Your task to perform on an android device: uninstall "Facebook Lite" Image 0: 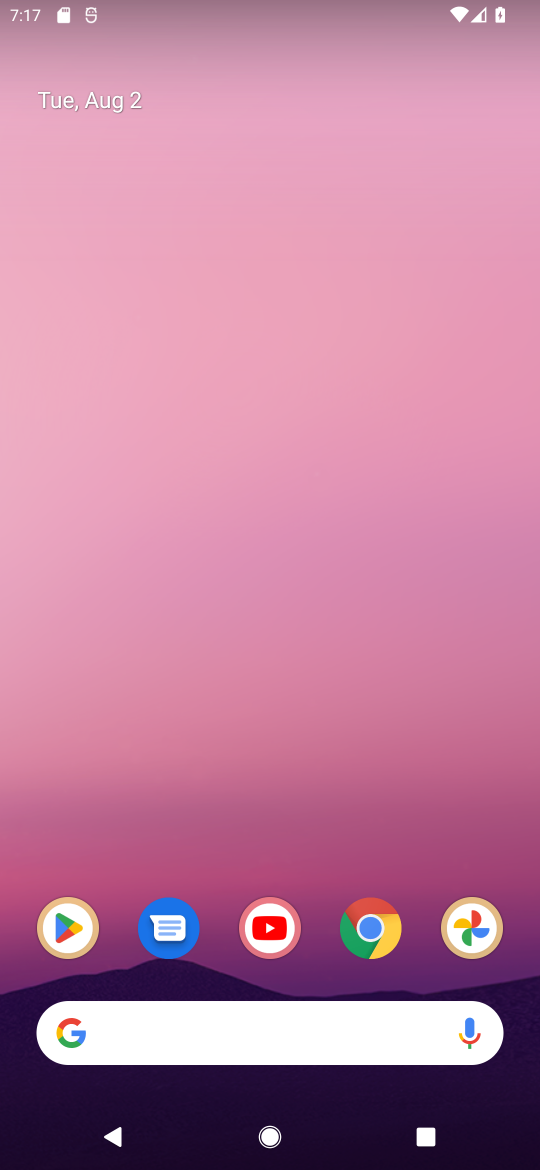
Step 0: click (70, 935)
Your task to perform on an android device: uninstall "Facebook Lite" Image 1: 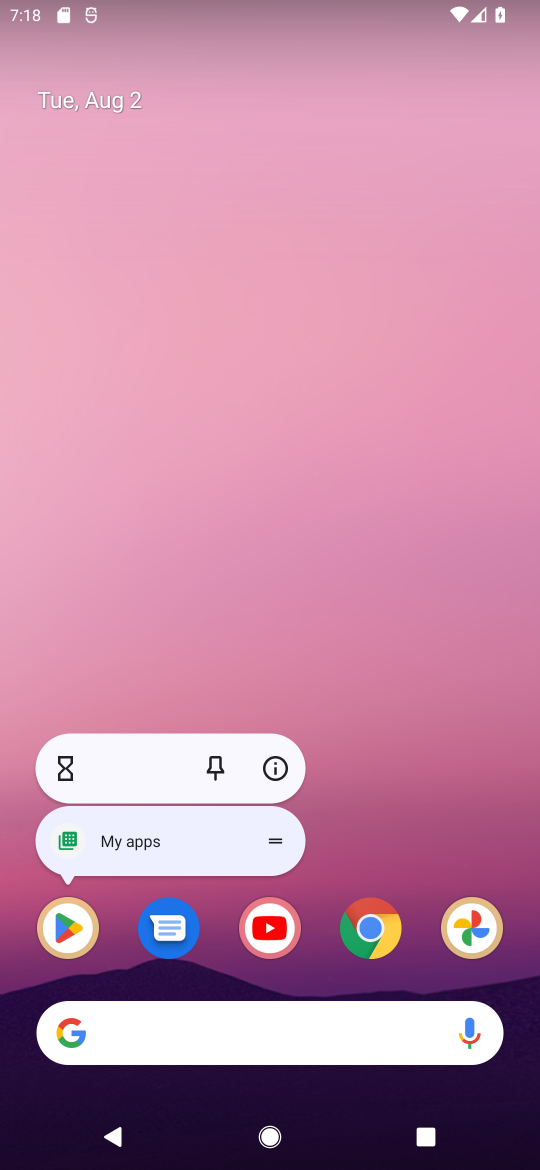
Step 1: click (70, 935)
Your task to perform on an android device: uninstall "Facebook Lite" Image 2: 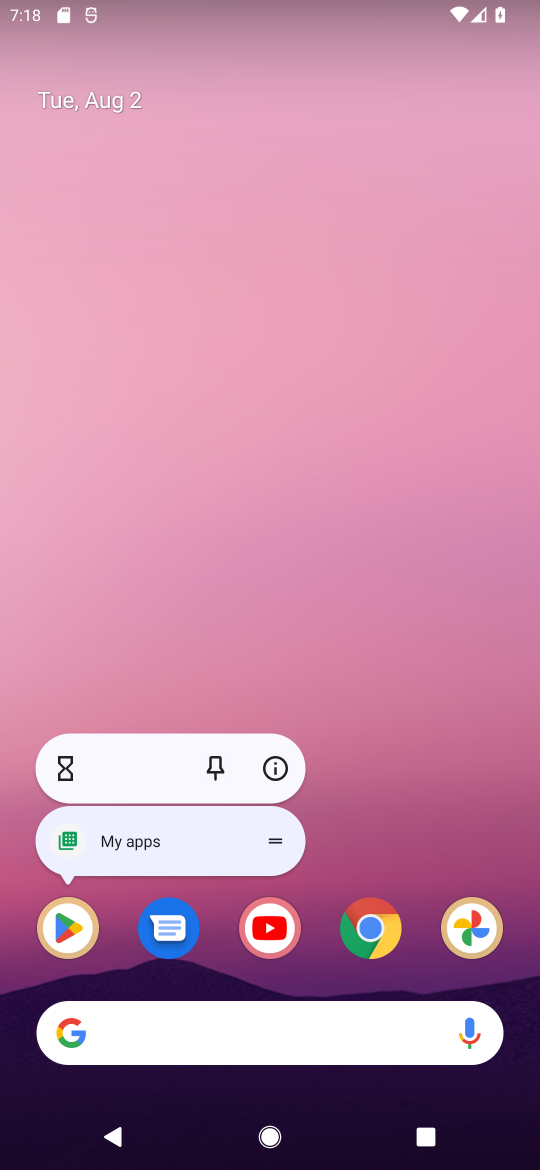
Step 2: click (55, 938)
Your task to perform on an android device: uninstall "Facebook Lite" Image 3: 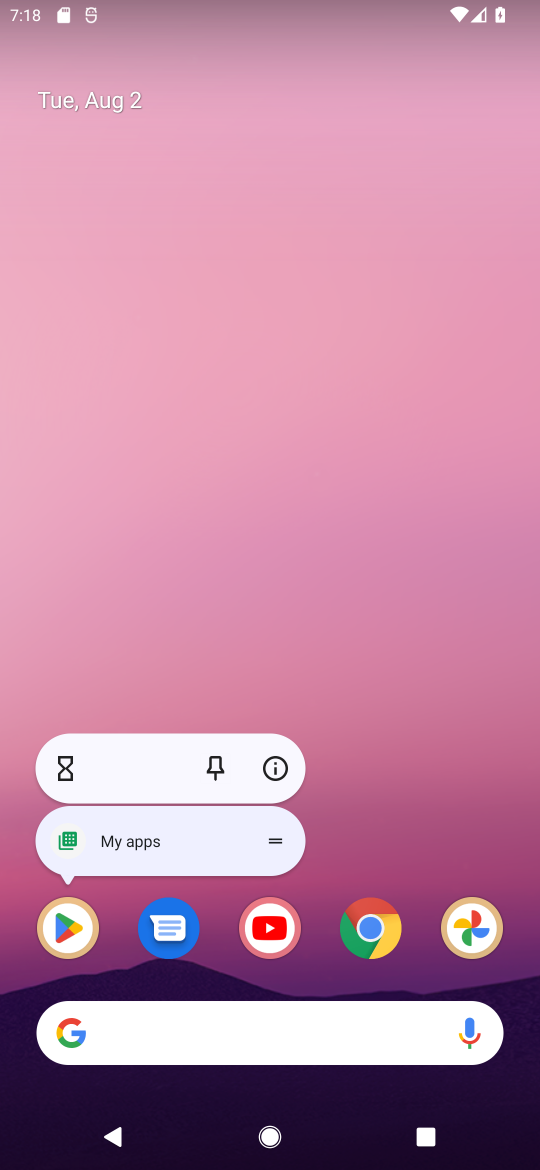
Step 3: click (81, 933)
Your task to perform on an android device: uninstall "Facebook Lite" Image 4: 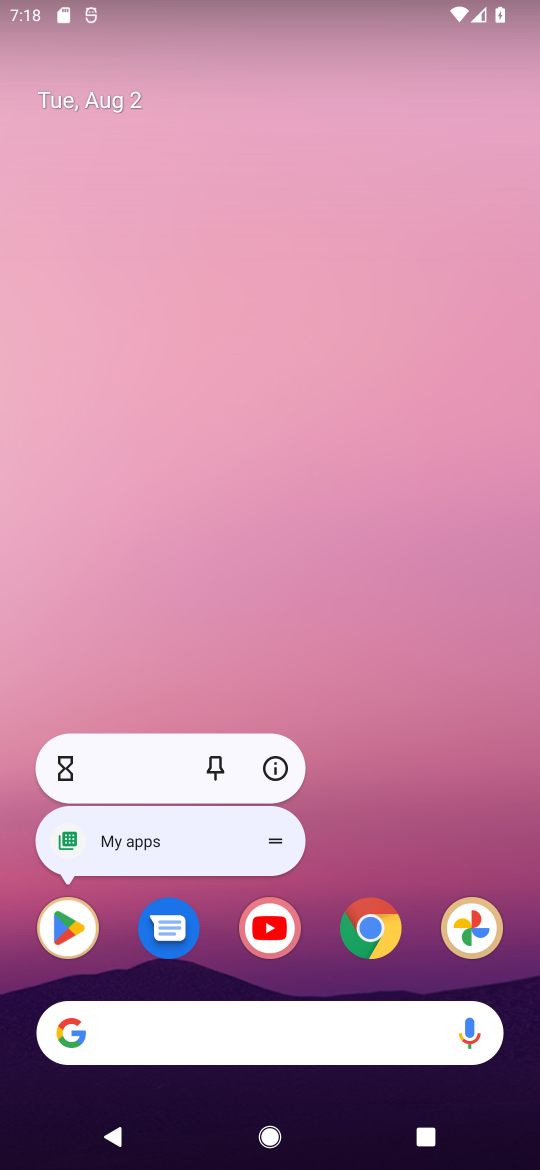
Step 4: click (65, 938)
Your task to perform on an android device: uninstall "Facebook Lite" Image 5: 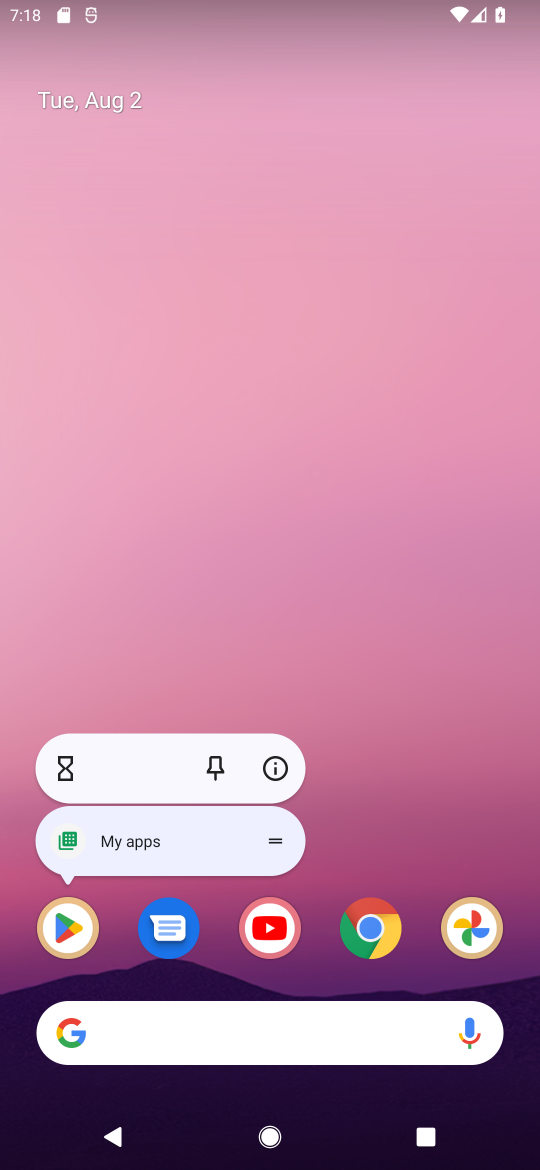
Step 5: click (33, 933)
Your task to perform on an android device: uninstall "Facebook Lite" Image 6: 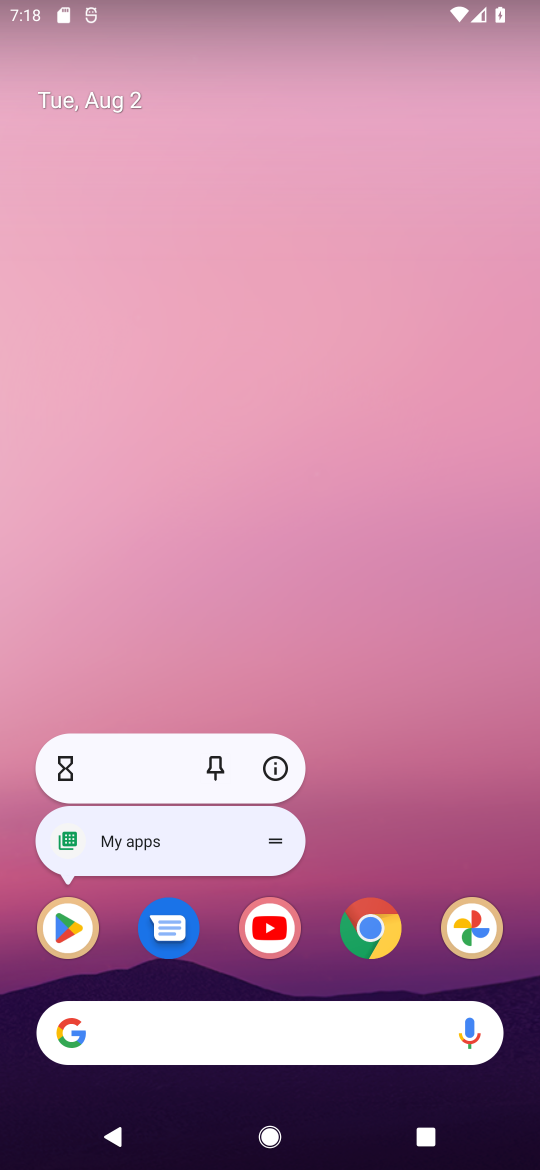
Step 6: drag from (83, 965) to (25, 926)
Your task to perform on an android device: uninstall "Facebook Lite" Image 7: 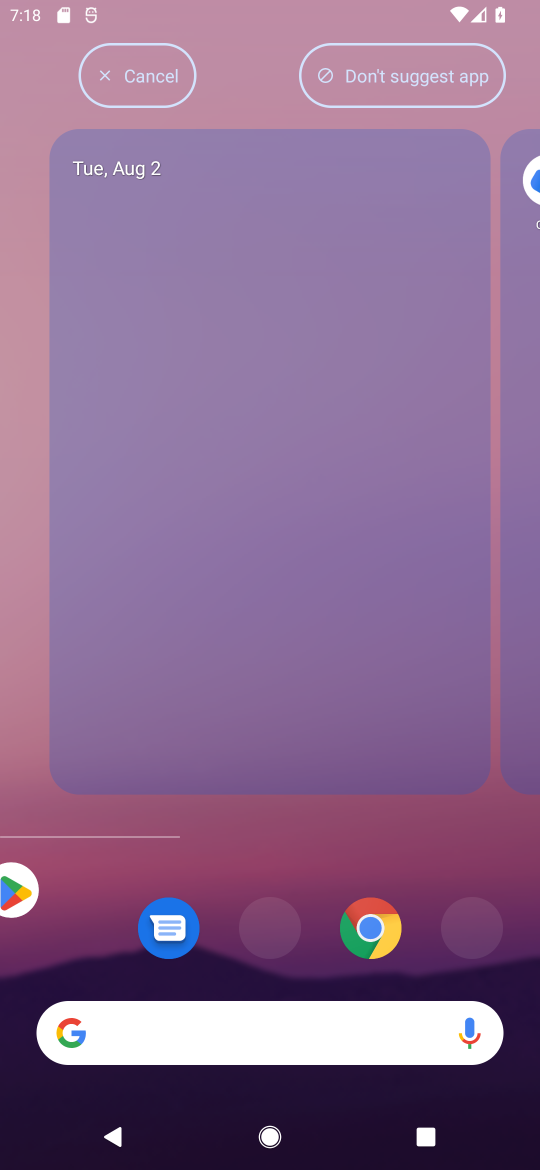
Step 7: click (69, 913)
Your task to perform on an android device: uninstall "Facebook Lite" Image 8: 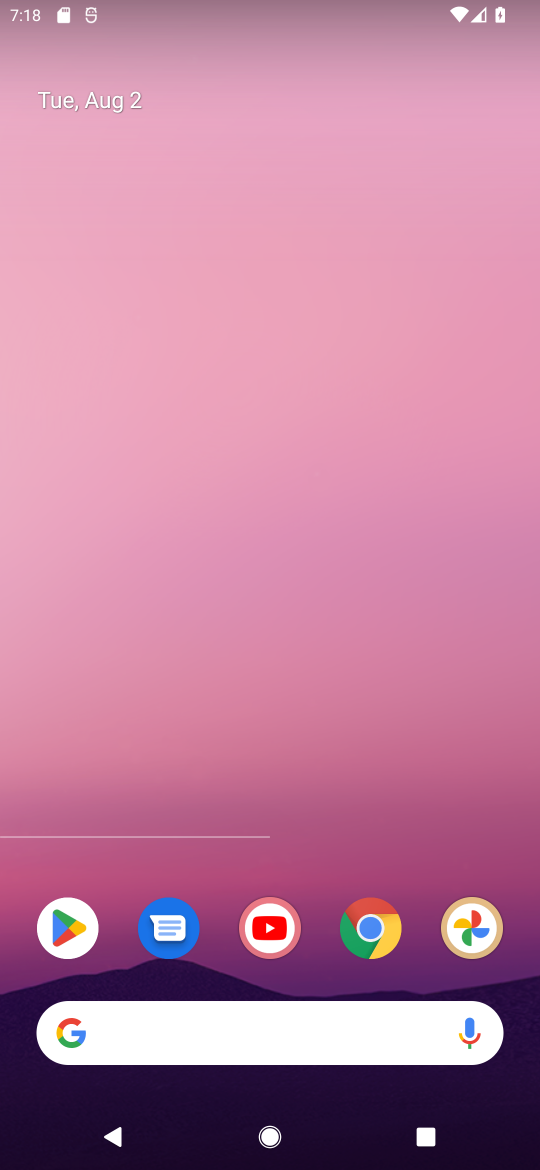
Step 8: click (69, 913)
Your task to perform on an android device: uninstall "Facebook Lite" Image 9: 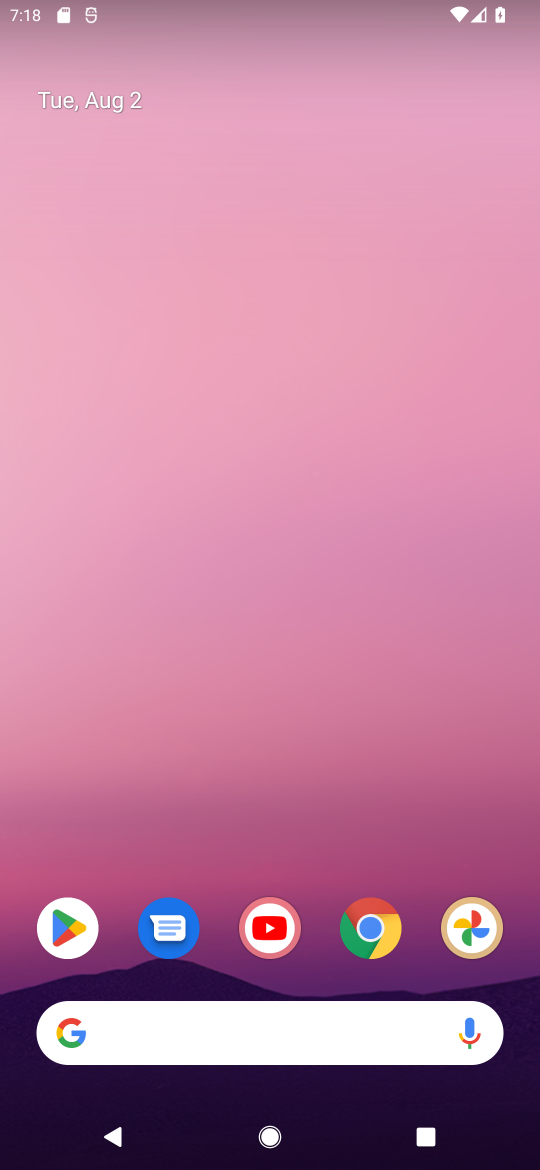
Step 9: click (69, 926)
Your task to perform on an android device: uninstall "Facebook Lite" Image 10: 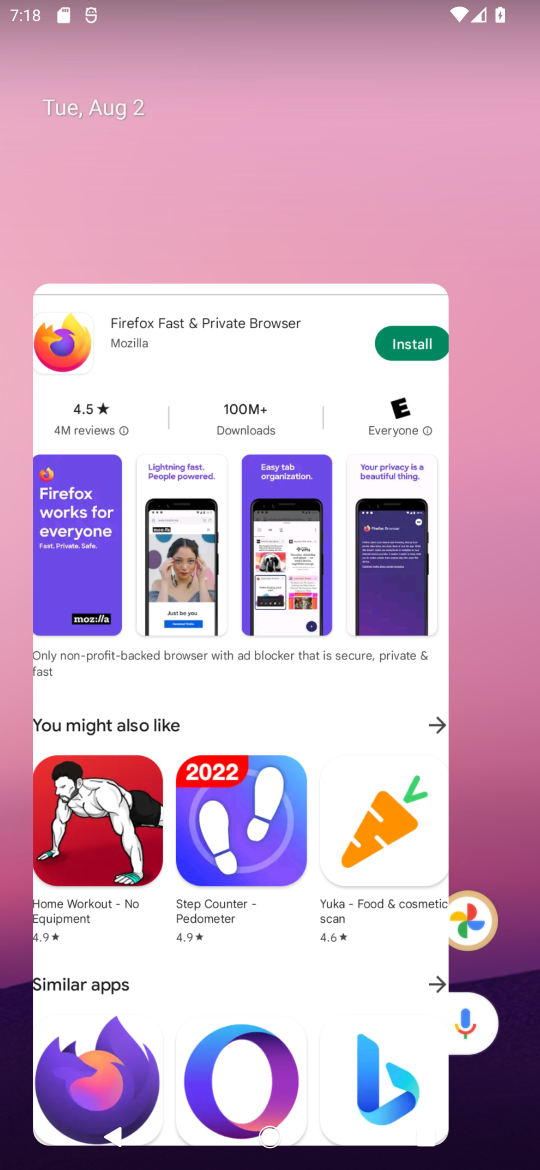
Step 10: click (69, 951)
Your task to perform on an android device: uninstall "Facebook Lite" Image 11: 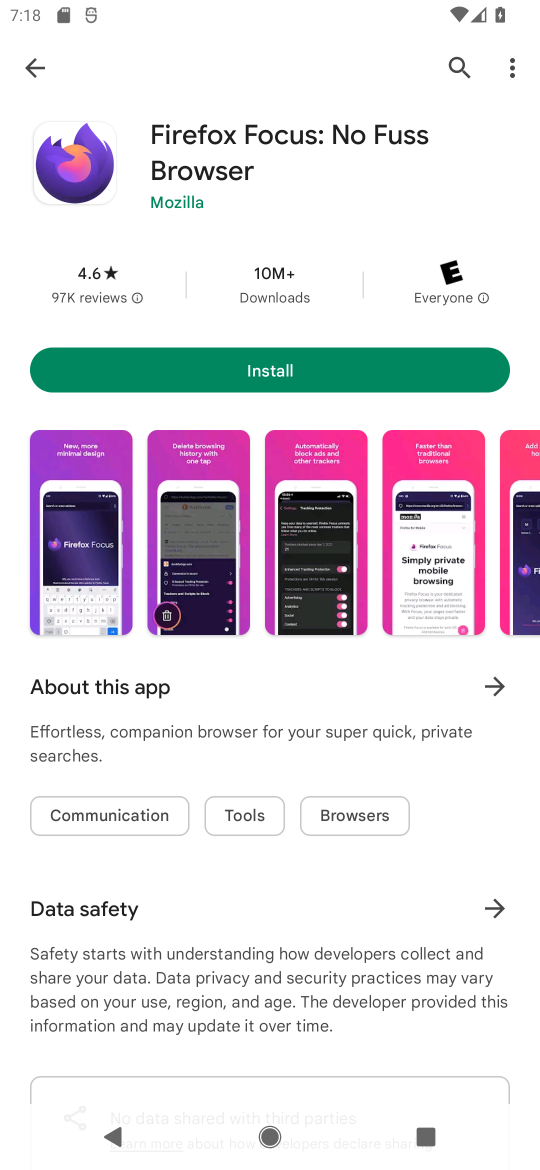
Step 11: click (467, 72)
Your task to perform on an android device: uninstall "Facebook Lite" Image 12: 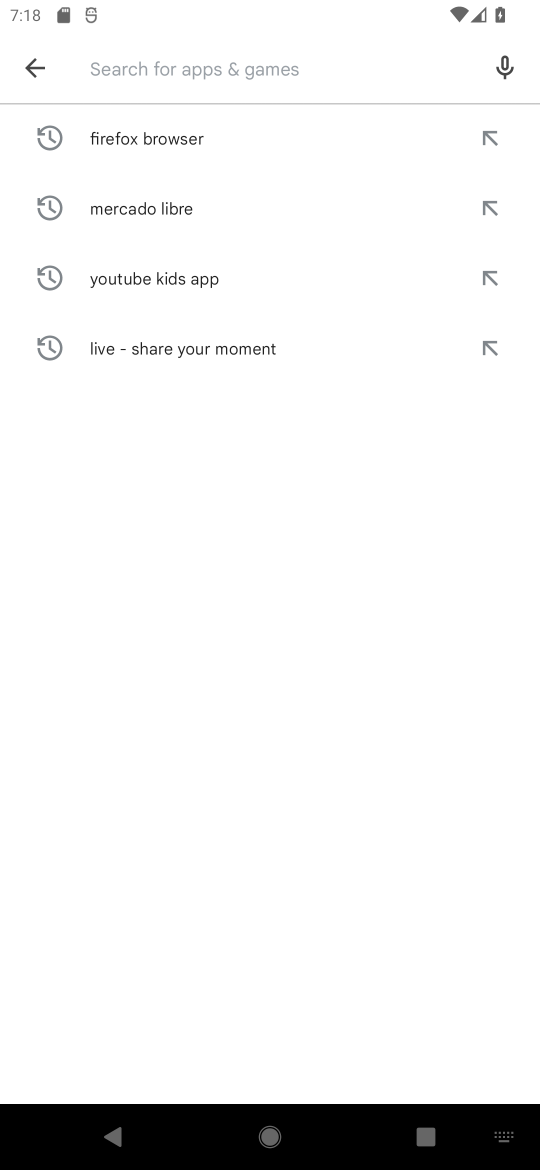
Step 12: click (275, 64)
Your task to perform on an android device: uninstall "Facebook Lite" Image 13: 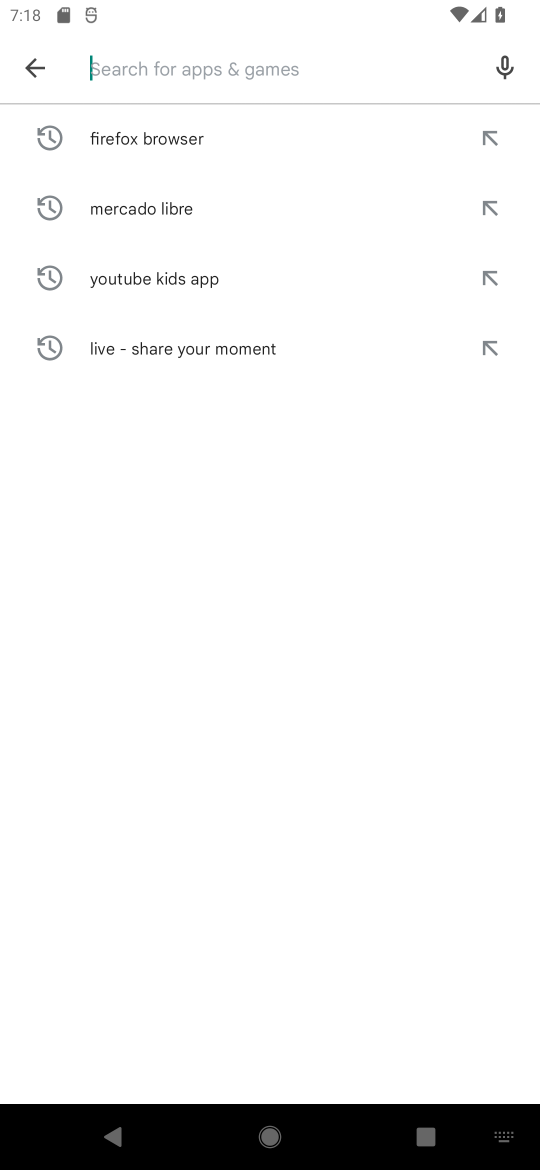
Step 13: type "facebook Lite""
Your task to perform on an android device: uninstall "Facebook Lite" Image 14: 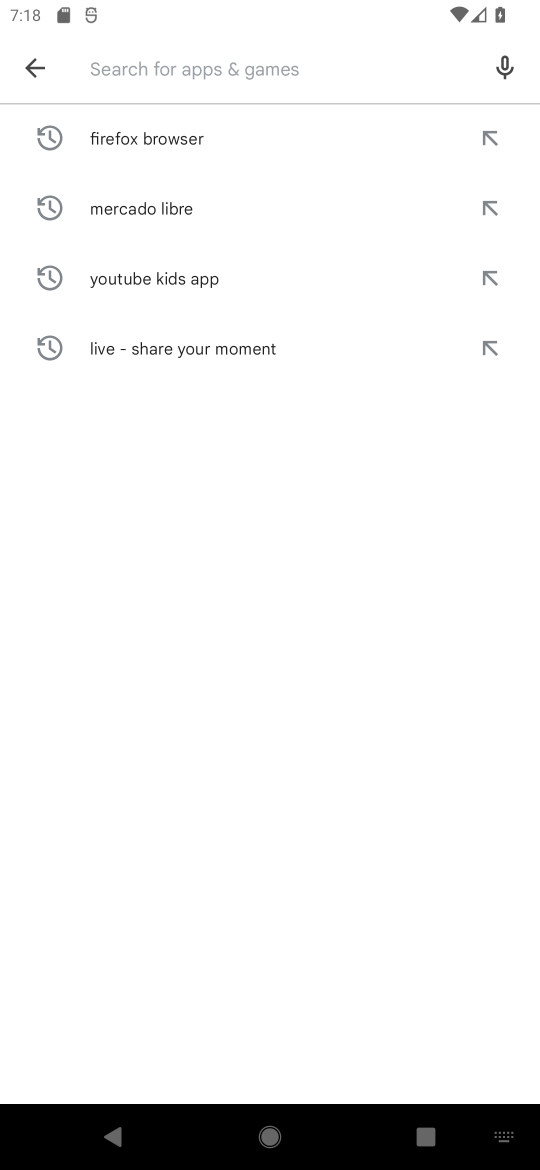
Step 14: type "facebook Lite""
Your task to perform on an android device: uninstall "Facebook Lite" Image 15: 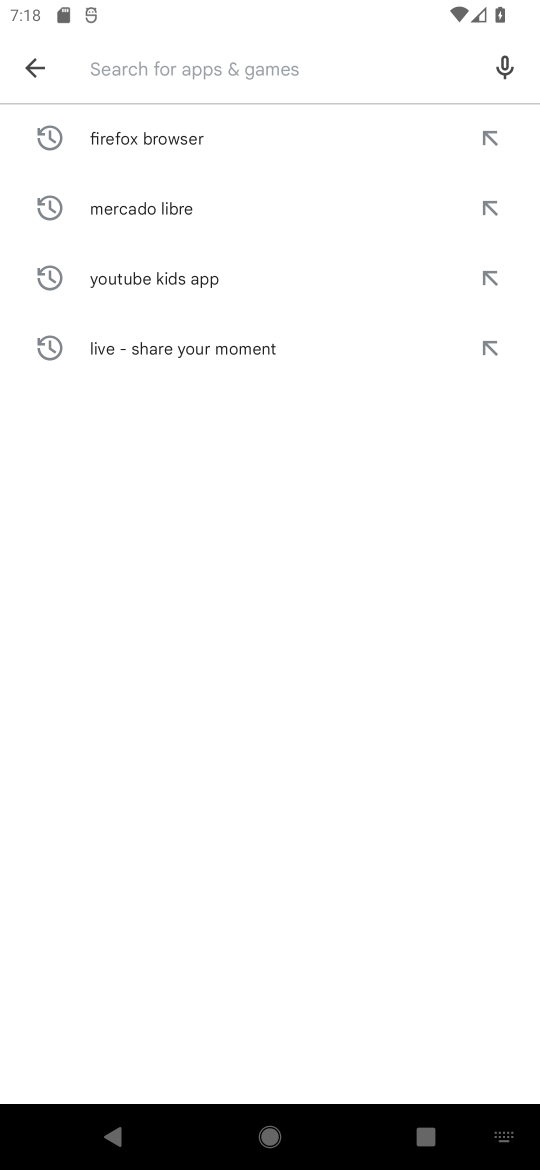
Step 15: type "facebook lite"
Your task to perform on an android device: uninstall "Facebook Lite" Image 16: 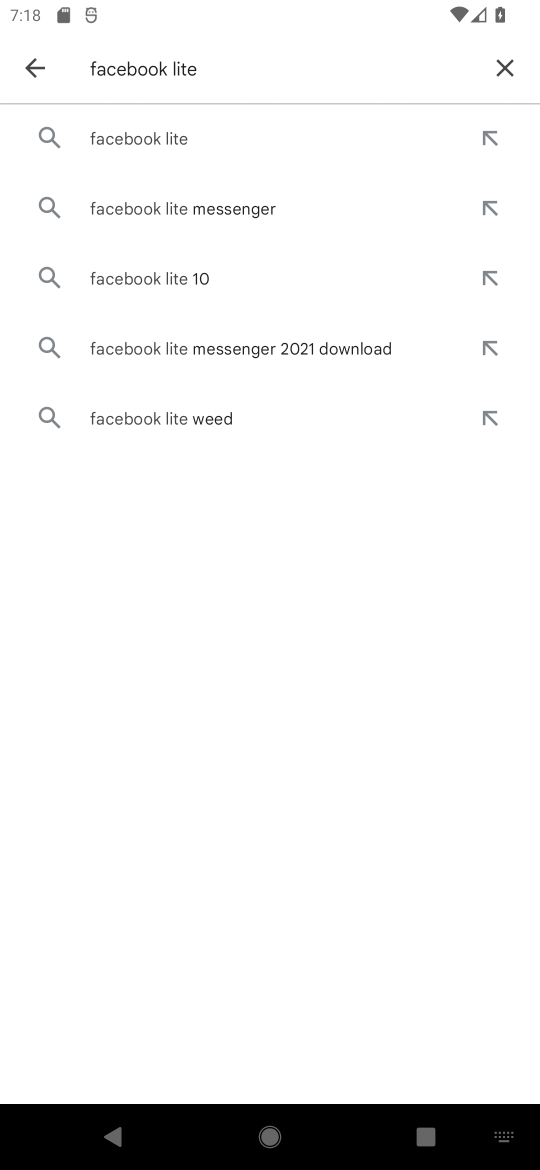
Step 16: click (276, 120)
Your task to perform on an android device: uninstall "Facebook Lite" Image 17: 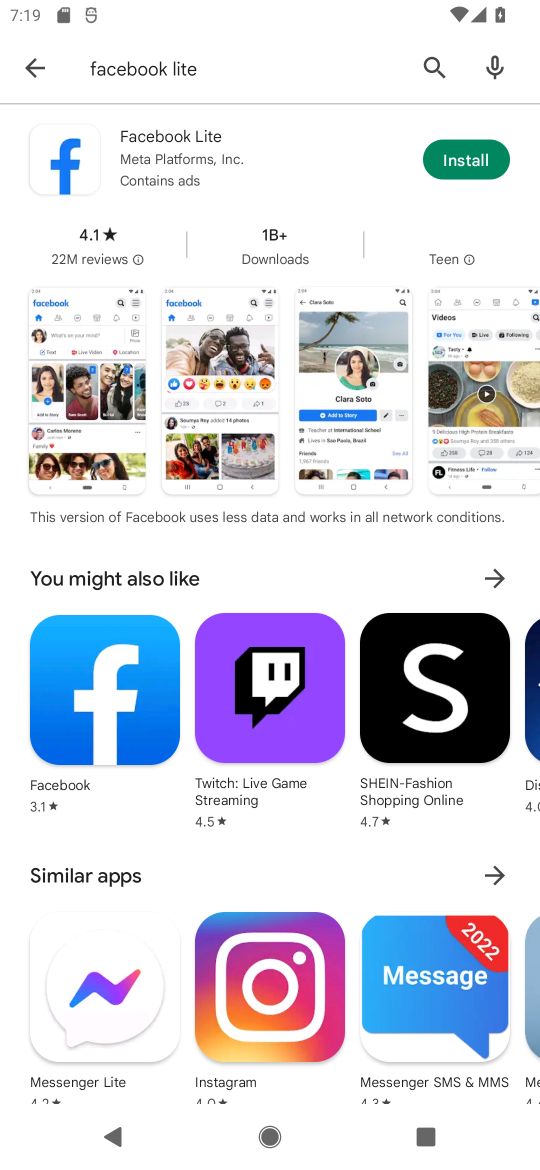
Step 17: task complete